Your task to perform on an android device: Open battery settings Image 0: 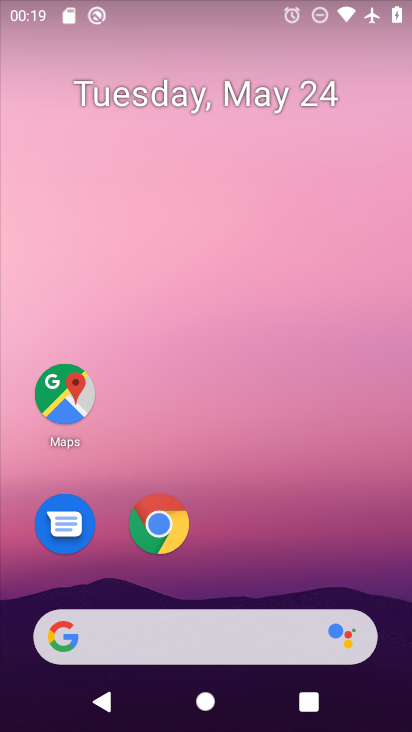
Step 0: drag from (228, 585) to (231, 209)
Your task to perform on an android device: Open battery settings Image 1: 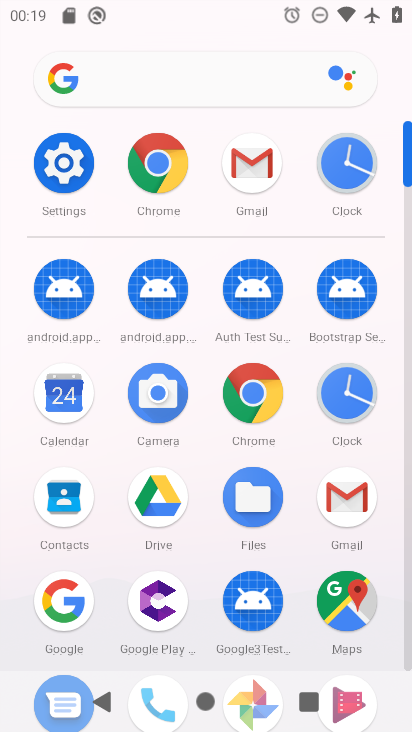
Step 1: click (73, 166)
Your task to perform on an android device: Open battery settings Image 2: 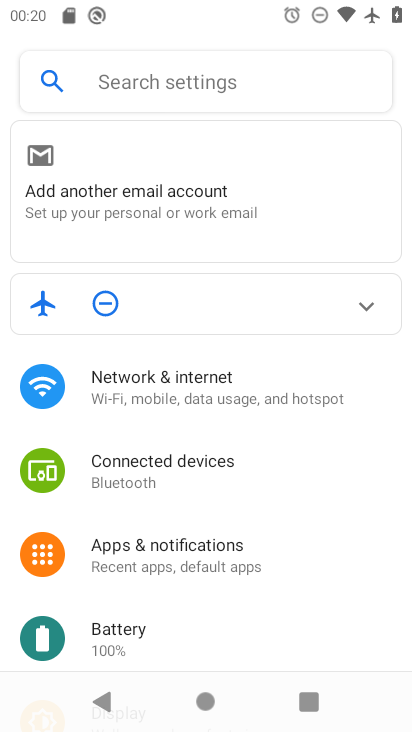
Step 2: drag from (210, 610) to (221, 378)
Your task to perform on an android device: Open battery settings Image 3: 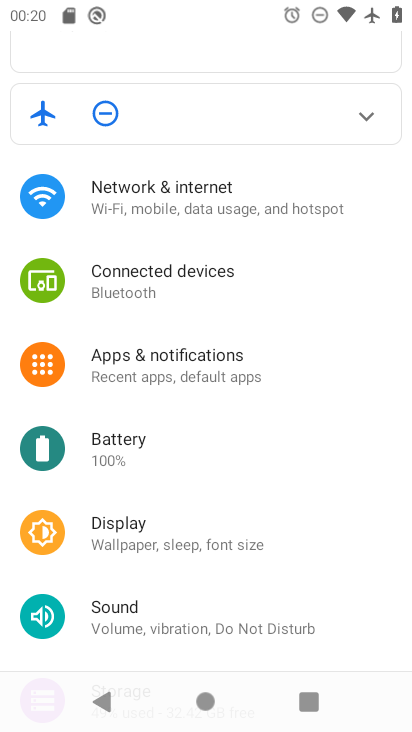
Step 3: click (182, 454)
Your task to perform on an android device: Open battery settings Image 4: 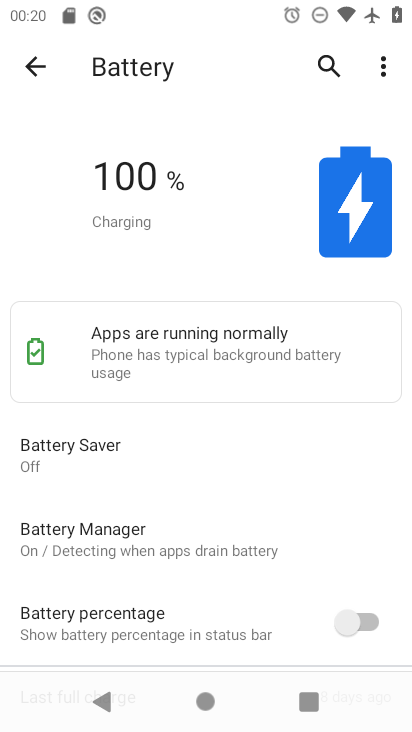
Step 4: task complete